Your task to perform on an android device: turn off improve location accuracy Image 0: 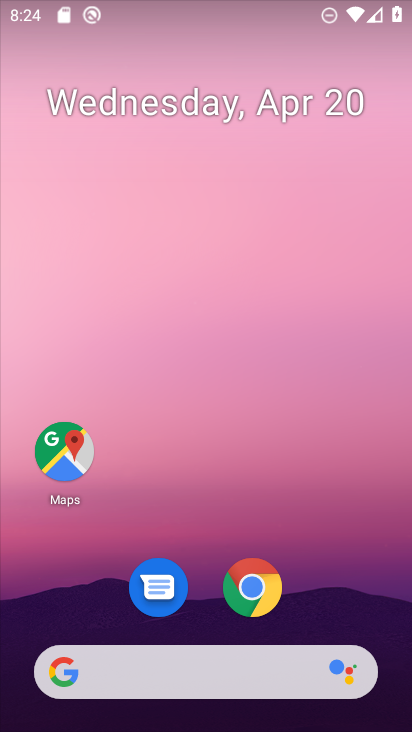
Step 0: drag from (336, 592) to (306, 208)
Your task to perform on an android device: turn off improve location accuracy Image 1: 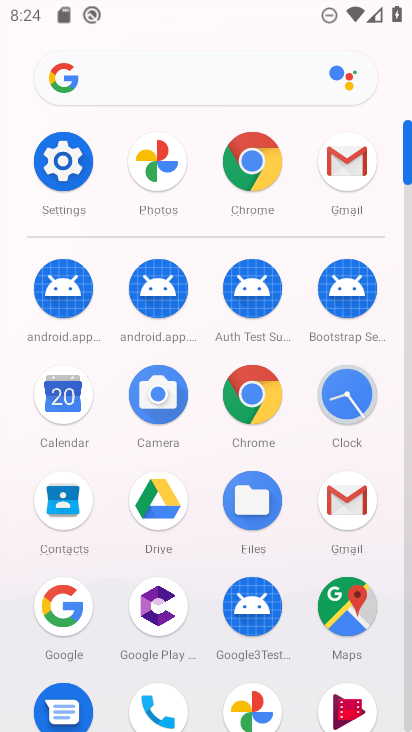
Step 1: click (84, 167)
Your task to perform on an android device: turn off improve location accuracy Image 2: 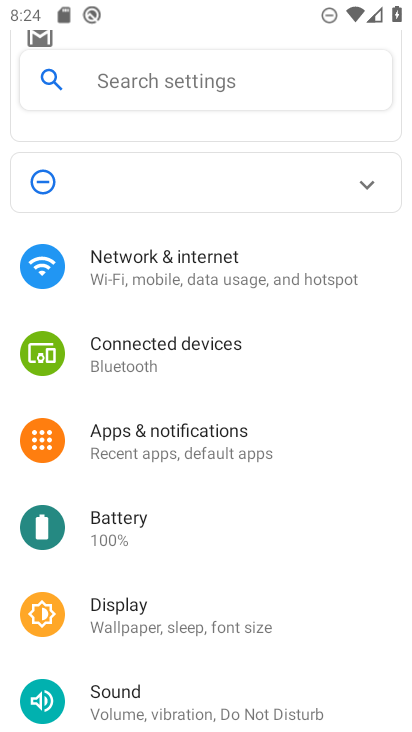
Step 2: drag from (189, 546) to (213, 325)
Your task to perform on an android device: turn off improve location accuracy Image 3: 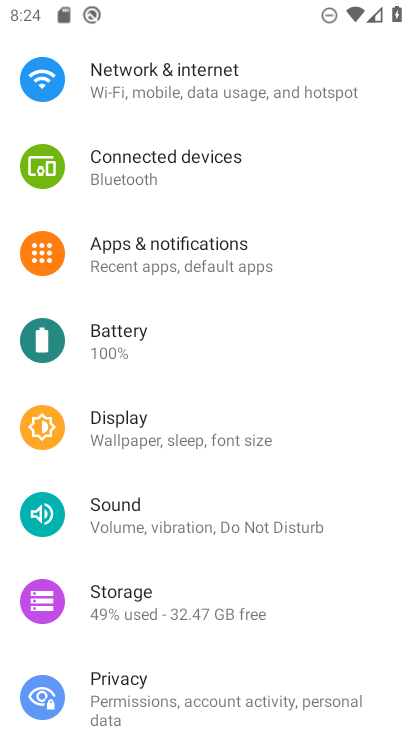
Step 3: drag from (196, 602) to (223, 335)
Your task to perform on an android device: turn off improve location accuracy Image 4: 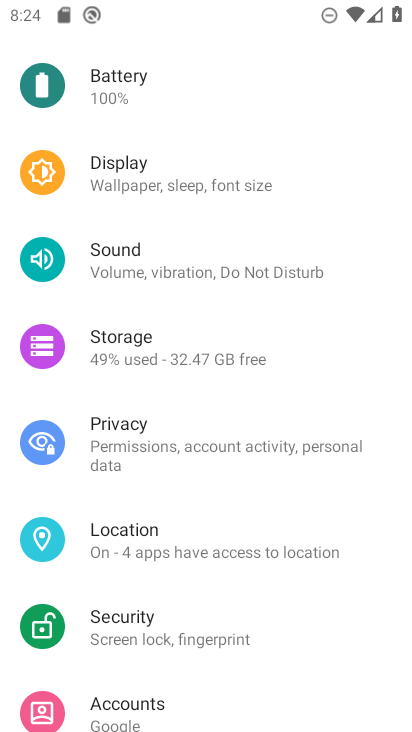
Step 4: click (169, 560)
Your task to perform on an android device: turn off improve location accuracy Image 5: 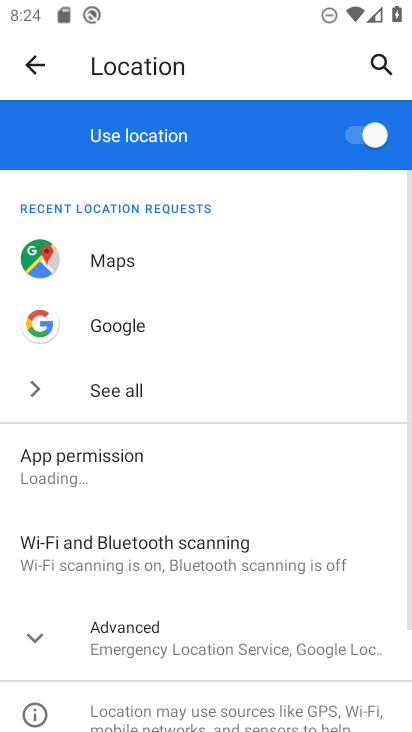
Step 5: drag from (169, 560) to (217, 299)
Your task to perform on an android device: turn off improve location accuracy Image 6: 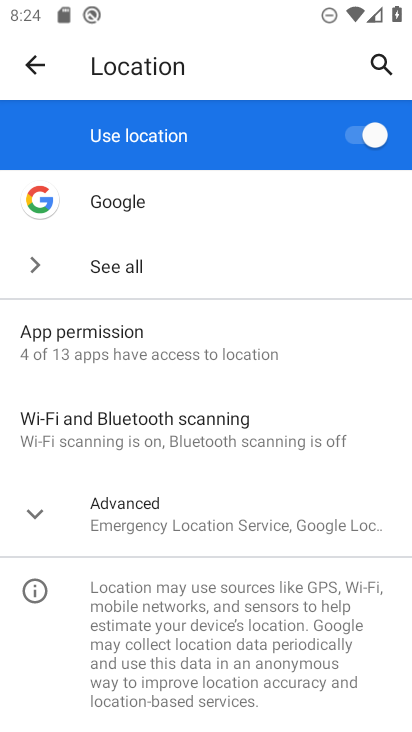
Step 6: click (170, 493)
Your task to perform on an android device: turn off improve location accuracy Image 7: 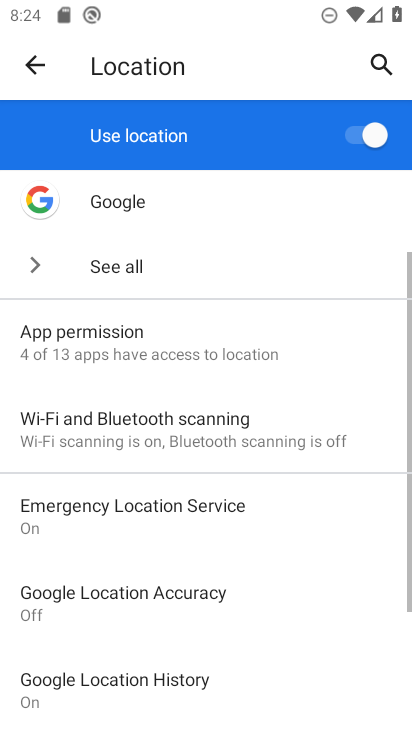
Step 7: drag from (170, 493) to (198, 295)
Your task to perform on an android device: turn off improve location accuracy Image 8: 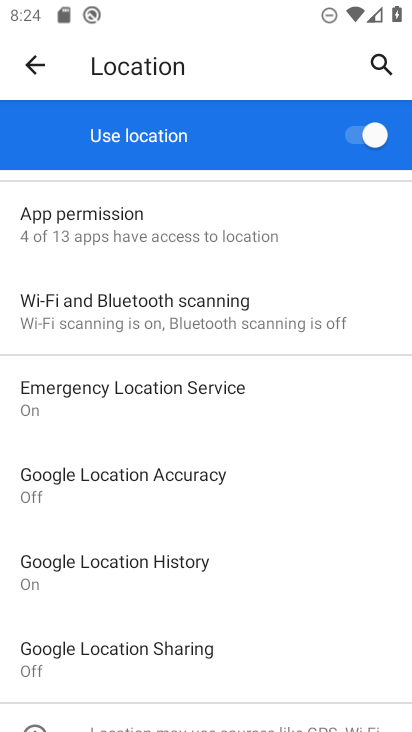
Step 8: click (159, 468)
Your task to perform on an android device: turn off improve location accuracy Image 9: 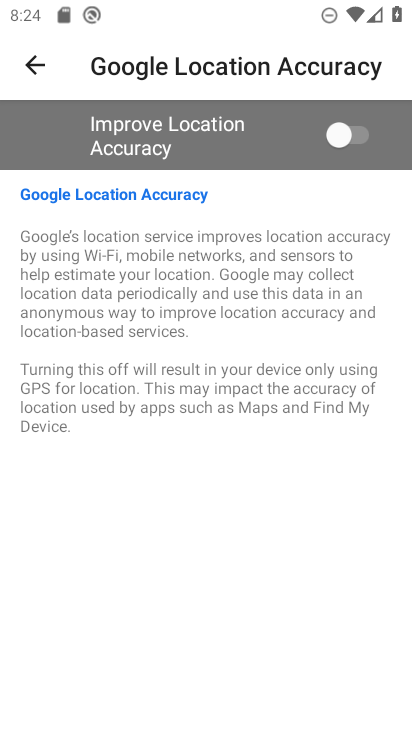
Step 9: task complete